Your task to perform on an android device: add a contact Image 0: 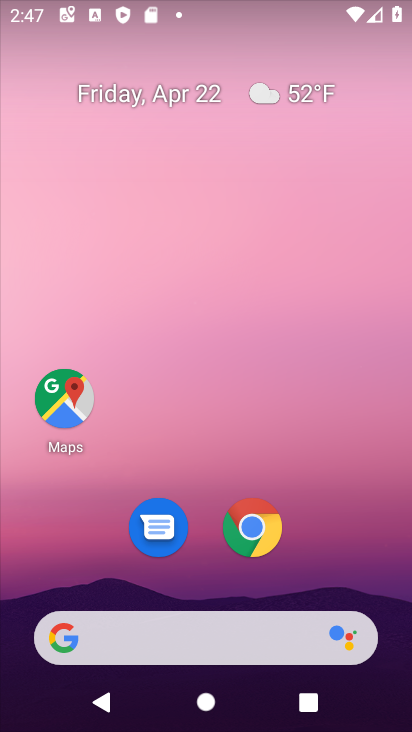
Step 0: drag from (345, 530) to (316, 66)
Your task to perform on an android device: add a contact Image 1: 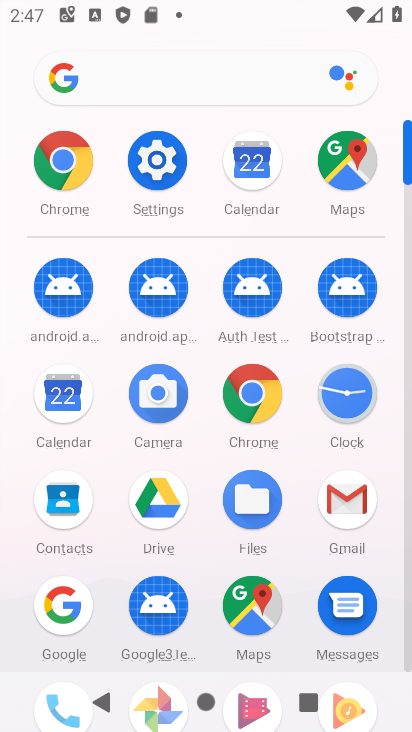
Step 1: drag from (410, 500) to (393, 216)
Your task to perform on an android device: add a contact Image 2: 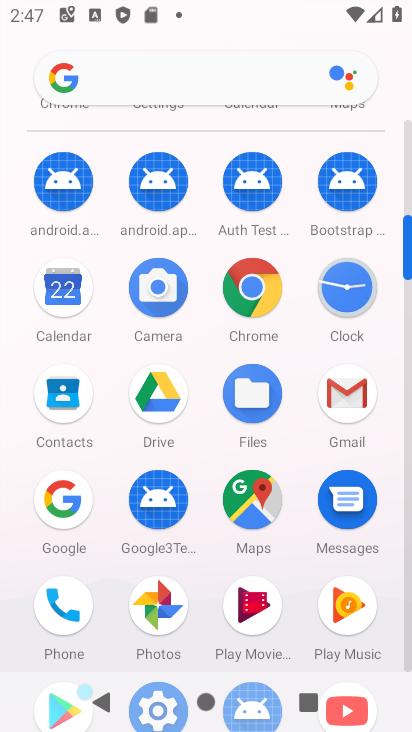
Step 2: click (75, 613)
Your task to perform on an android device: add a contact Image 3: 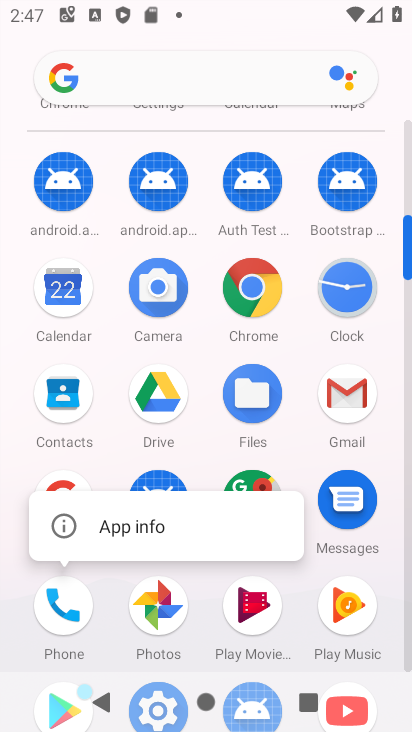
Step 3: click (75, 613)
Your task to perform on an android device: add a contact Image 4: 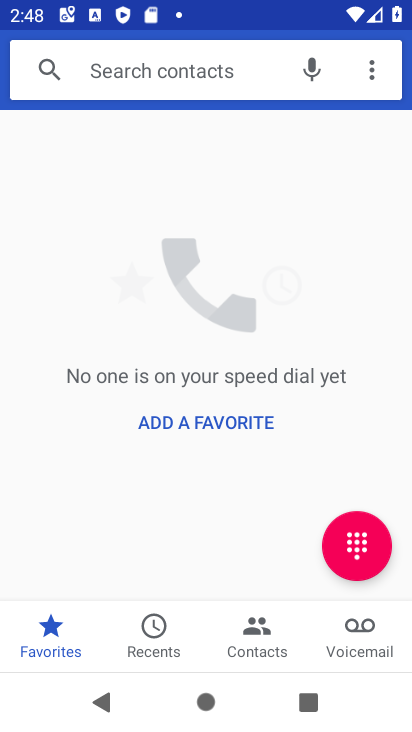
Step 4: click (269, 619)
Your task to perform on an android device: add a contact Image 5: 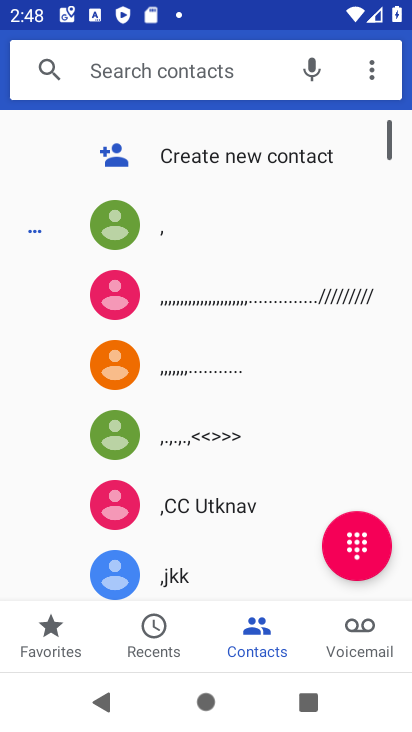
Step 5: click (228, 148)
Your task to perform on an android device: add a contact Image 6: 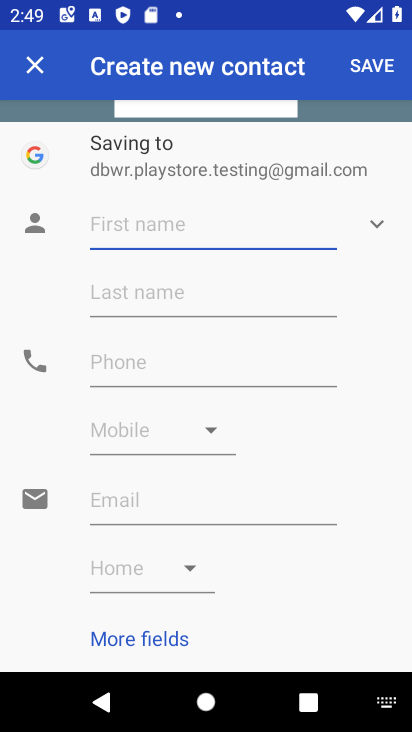
Step 6: type "tarun"
Your task to perform on an android device: add a contact Image 7: 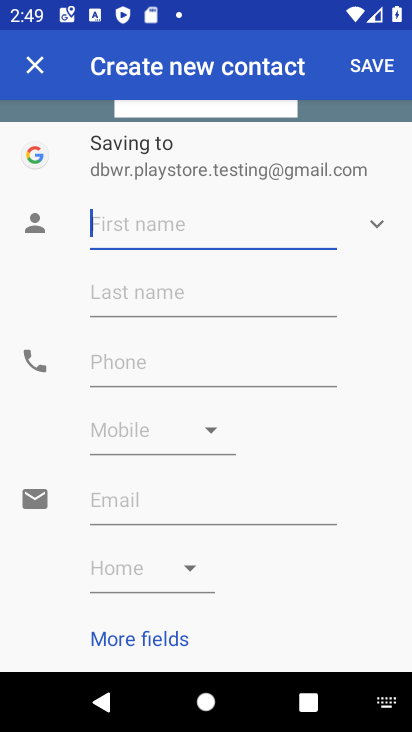
Step 7: click (117, 354)
Your task to perform on an android device: add a contact Image 8: 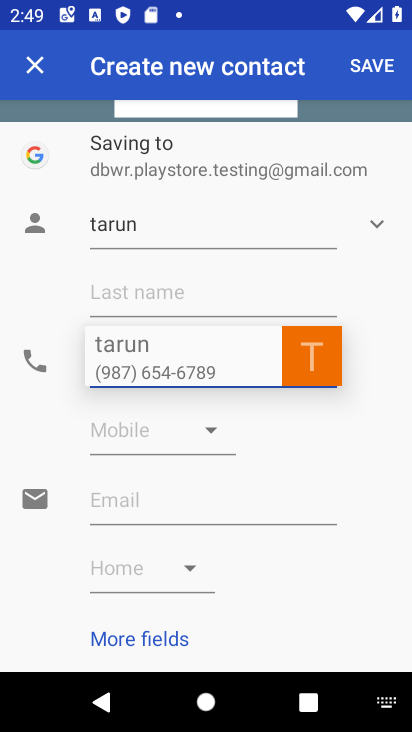
Step 8: type "876555678"
Your task to perform on an android device: add a contact Image 9: 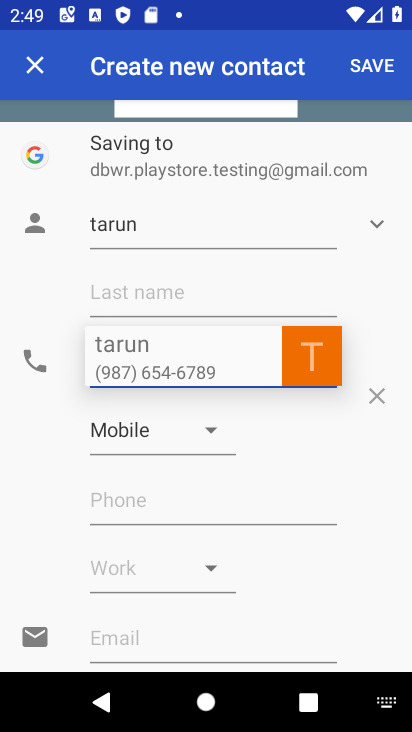
Step 9: click (370, 73)
Your task to perform on an android device: add a contact Image 10: 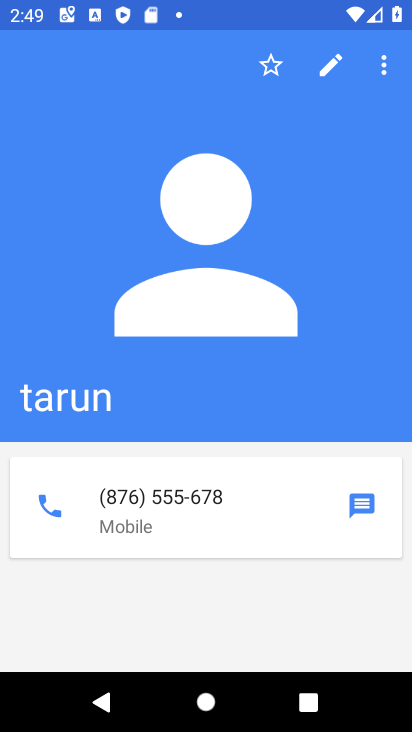
Step 10: task complete